Your task to perform on an android device: Search for good Greek restaurants Image 0: 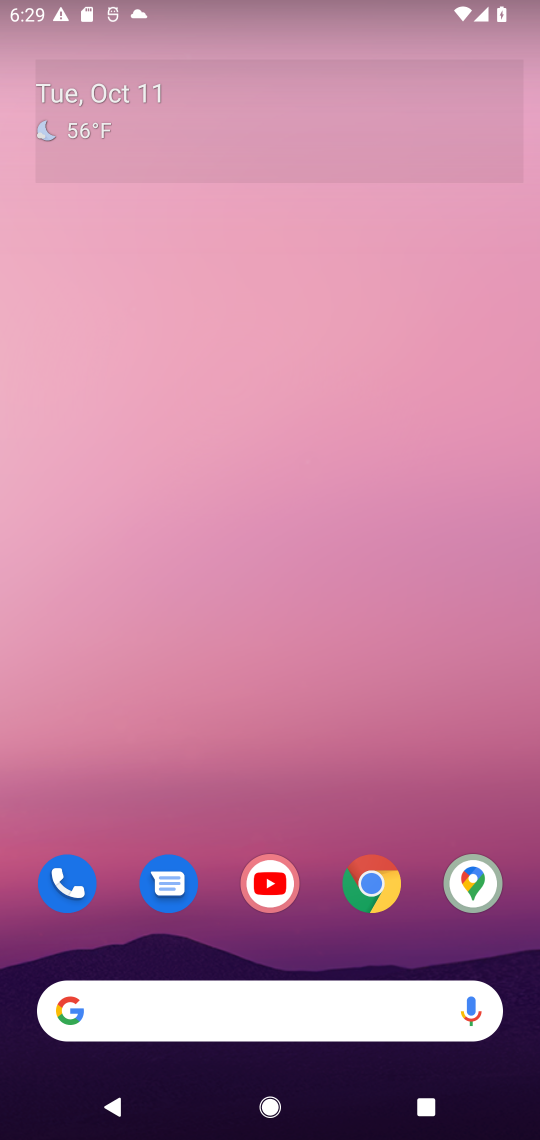
Step 0: drag from (335, 287) to (347, 6)
Your task to perform on an android device: Search for good Greek restaurants Image 1: 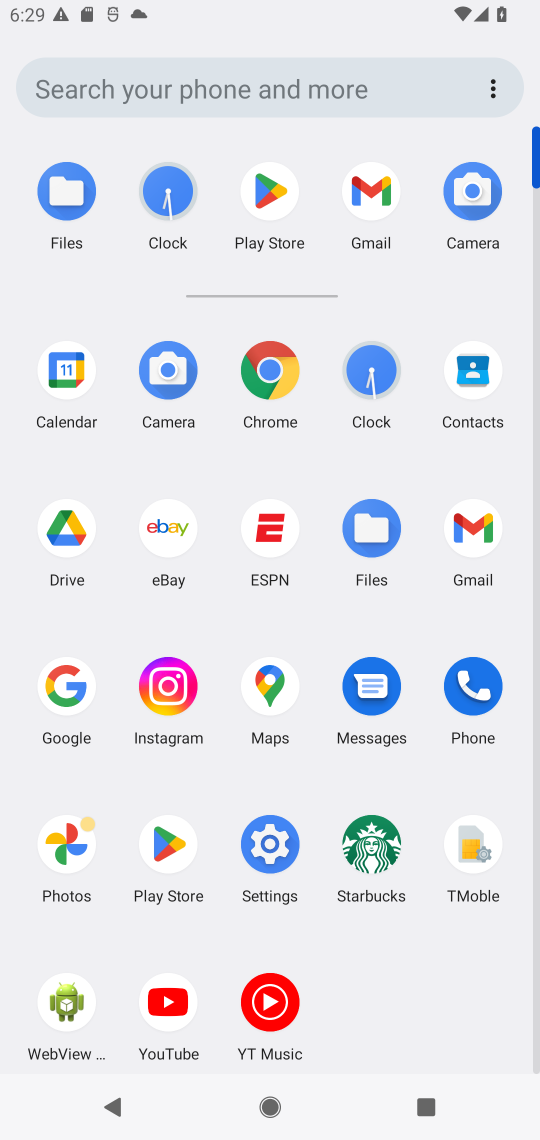
Step 1: click (257, 372)
Your task to perform on an android device: Search for good Greek restaurants Image 2: 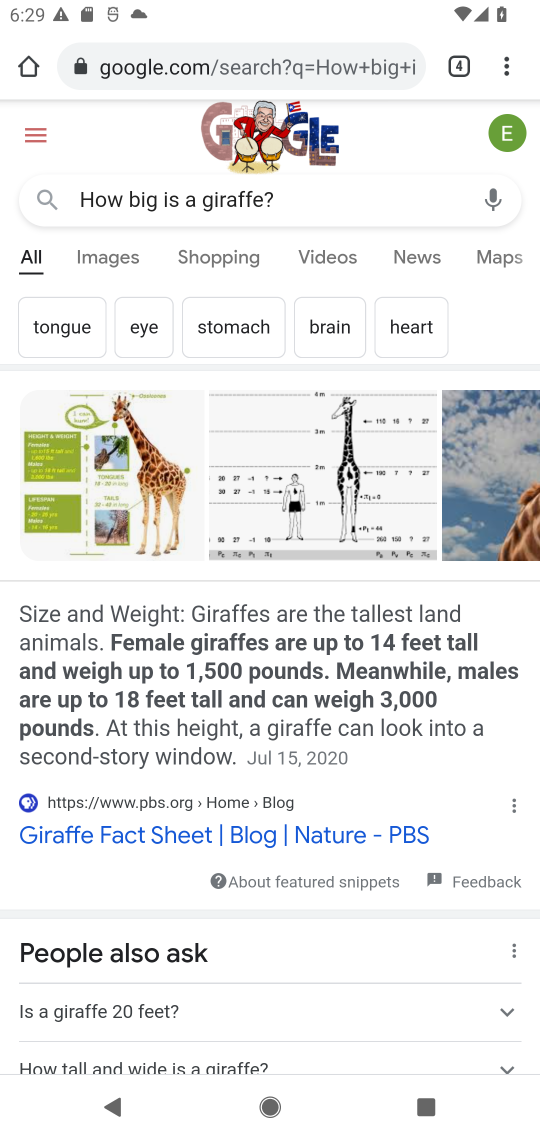
Step 2: click (277, 61)
Your task to perform on an android device: Search for good Greek restaurants Image 3: 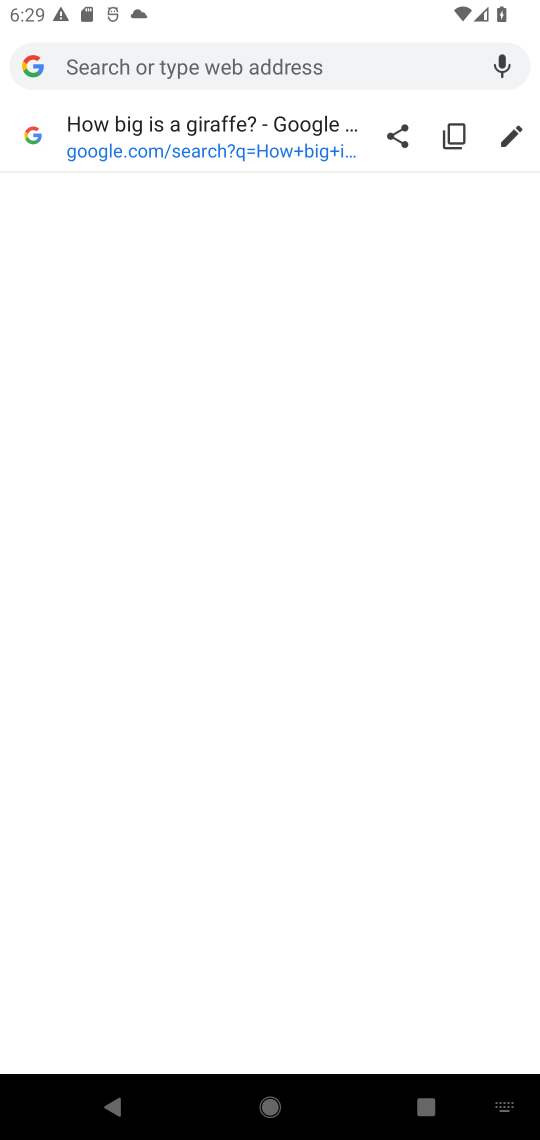
Step 3: type "good Greek restaurants"
Your task to perform on an android device: Search for good Greek restaurants Image 4: 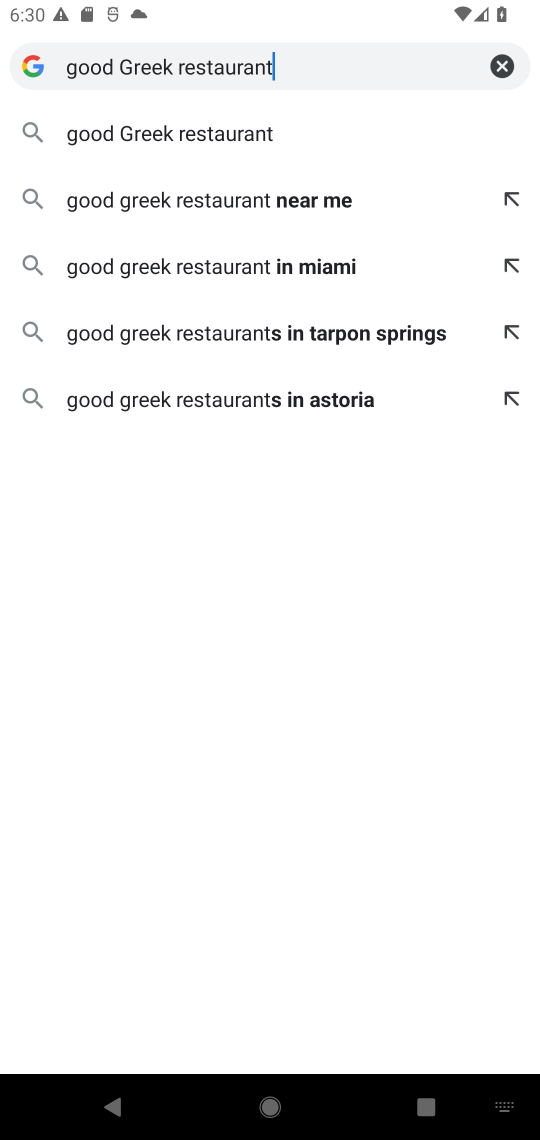
Step 4: press enter
Your task to perform on an android device: Search for good Greek restaurants Image 5: 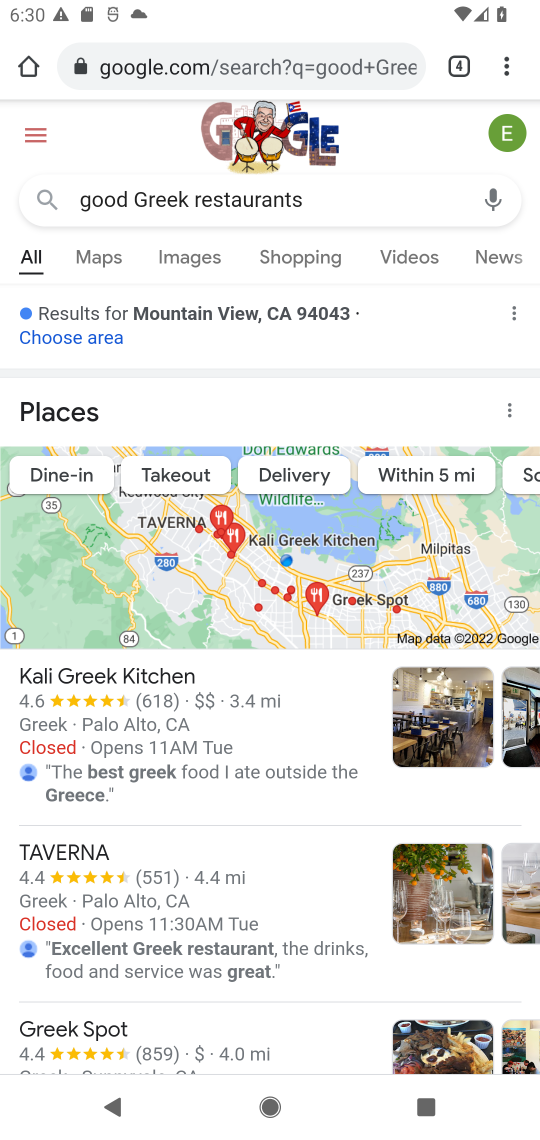
Step 5: task complete